Your task to perform on an android device: see creations saved in the google photos Image 0: 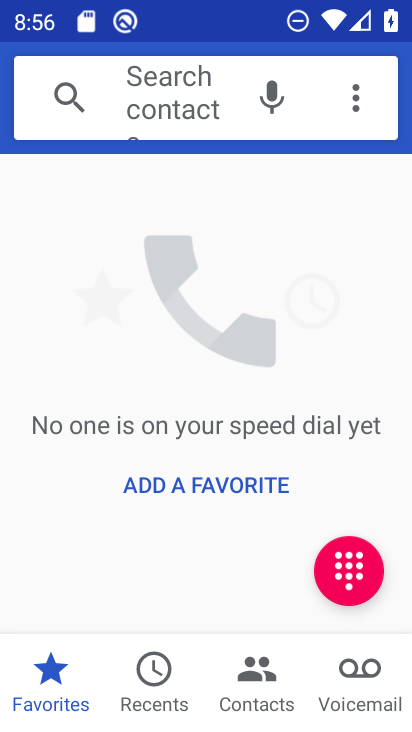
Step 0: press back button
Your task to perform on an android device: see creations saved in the google photos Image 1: 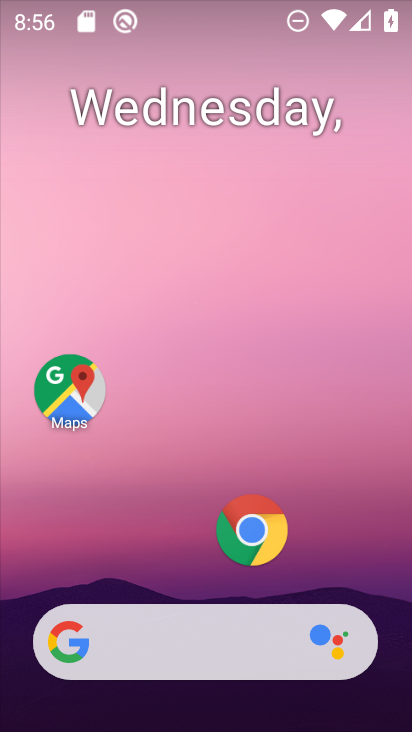
Step 1: drag from (140, 527) to (261, 60)
Your task to perform on an android device: see creations saved in the google photos Image 2: 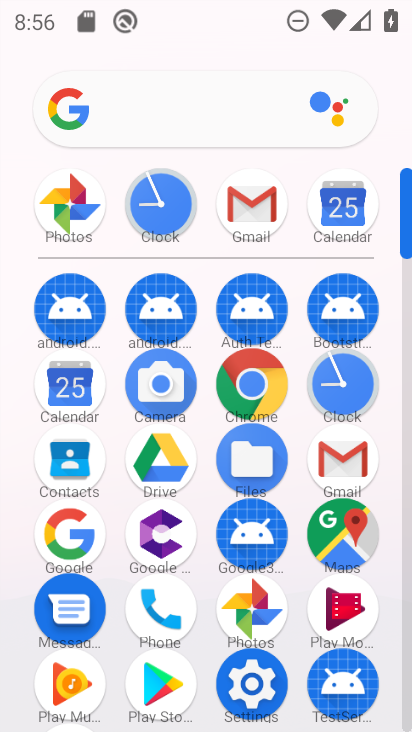
Step 2: click (256, 607)
Your task to perform on an android device: see creations saved in the google photos Image 3: 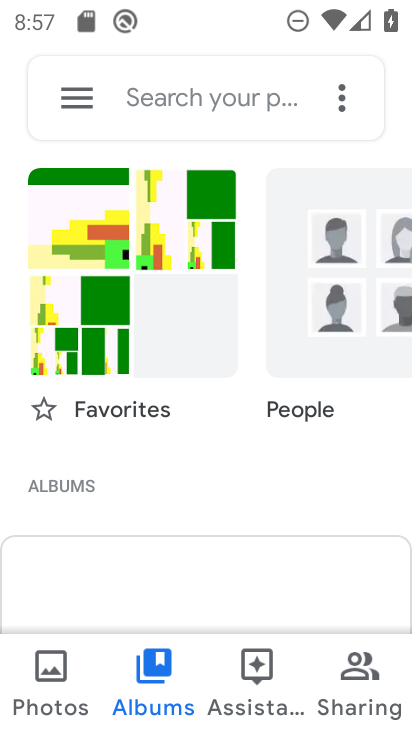
Step 3: click (64, 92)
Your task to perform on an android device: see creations saved in the google photos Image 4: 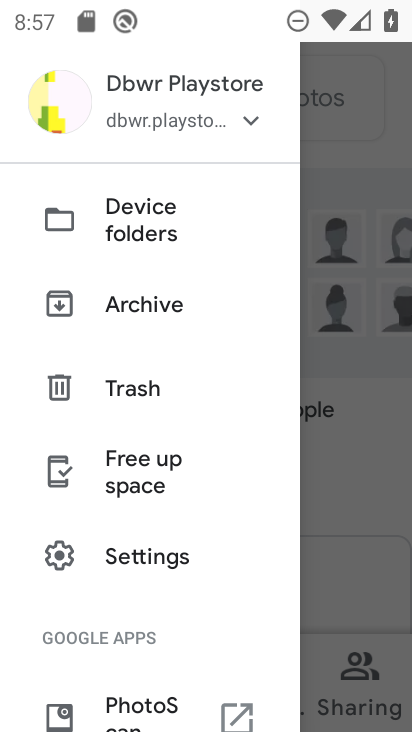
Step 4: click (153, 311)
Your task to perform on an android device: see creations saved in the google photos Image 5: 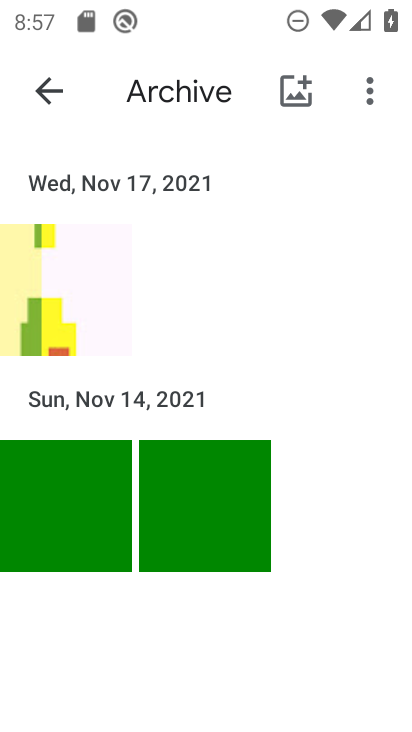
Step 5: task complete